Your task to perform on an android device: Open the phone app and click the voicemail tab. Image 0: 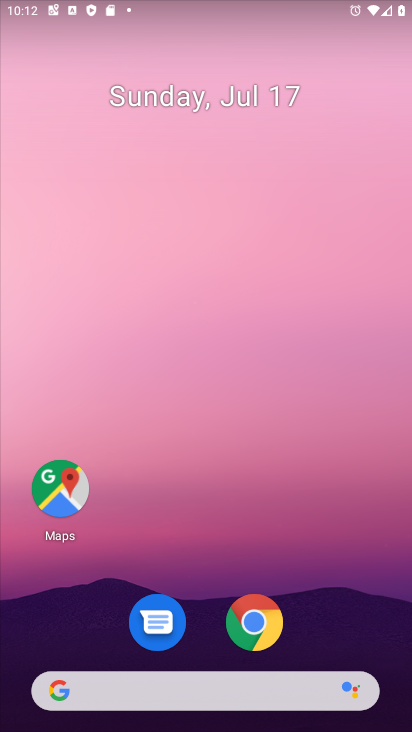
Step 0: drag from (258, 715) to (200, 58)
Your task to perform on an android device: Open the phone app and click the voicemail tab. Image 1: 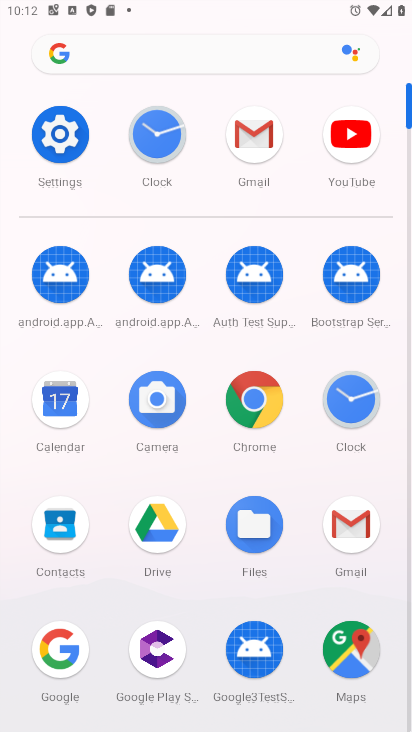
Step 1: drag from (271, 667) to (254, 13)
Your task to perform on an android device: Open the phone app and click the voicemail tab. Image 2: 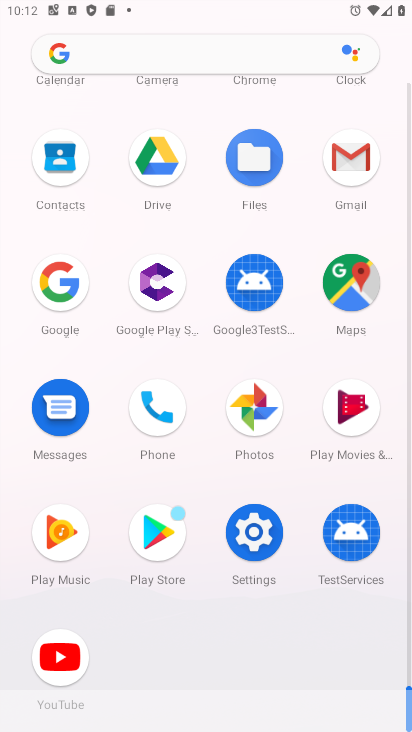
Step 2: click (167, 403)
Your task to perform on an android device: Open the phone app and click the voicemail tab. Image 3: 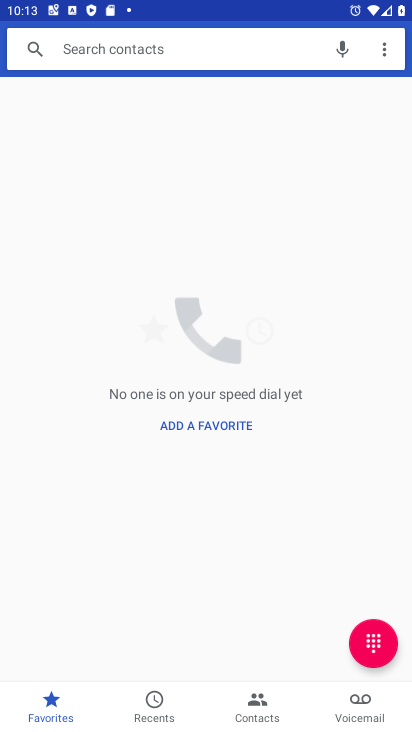
Step 3: click (361, 707)
Your task to perform on an android device: Open the phone app and click the voicemail tab. Image 4: 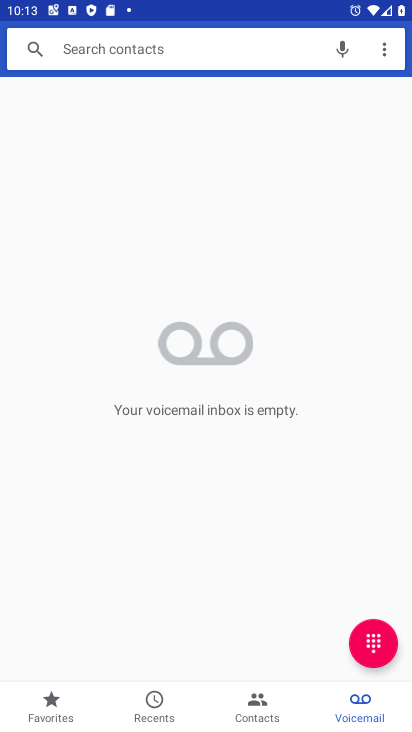
Step 4: task complete